Your task to perform on an android device: open device folders in google photos Image 0: 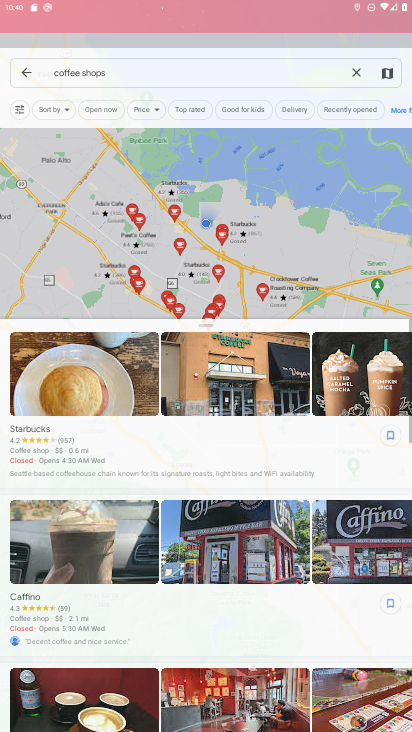
Step 0: click (141, 655)
Your task to perform on an android device: open device folders in google photos Image 1: 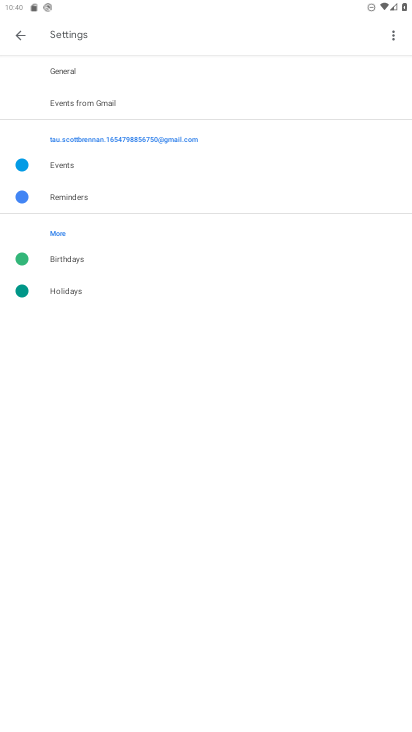
Step 1: press home button
Your task to perform on an android device: open device folders in google photos Image 2: 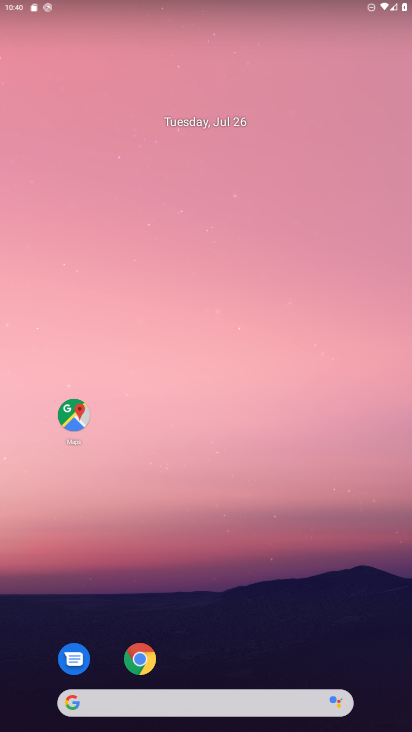
Step 2: drag from (385, 717) to (305, 130)
Your task to perform on an android device: open device folders in google photos Image 3: 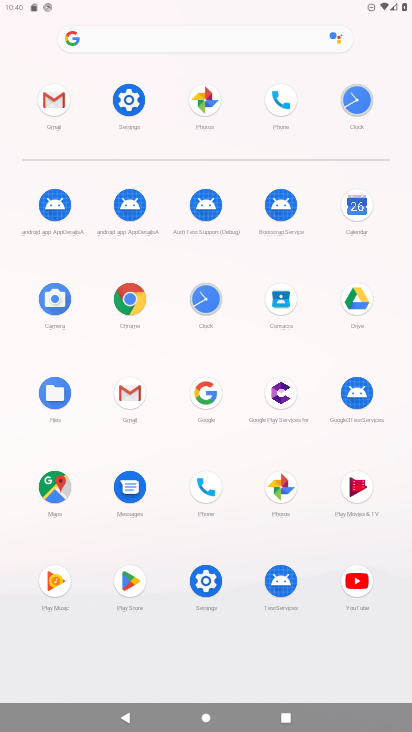
Step 3: click (279, 482)
Your task to perform on an android device: open device folders in google photos Image 4: 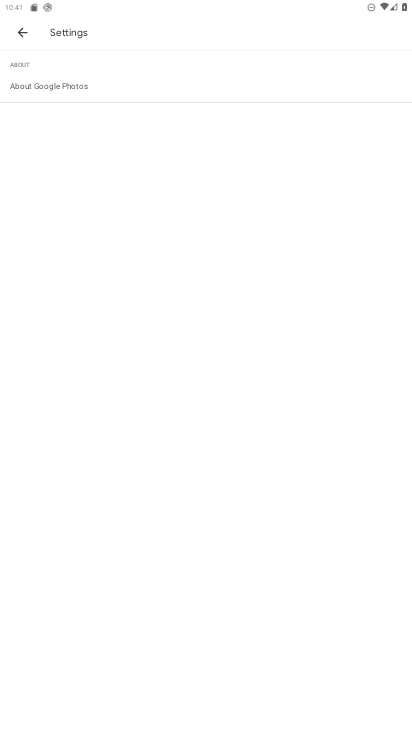
Step 4: click (19, 36)
Your task to perform on an android device: open device folders in google photos Image 5: 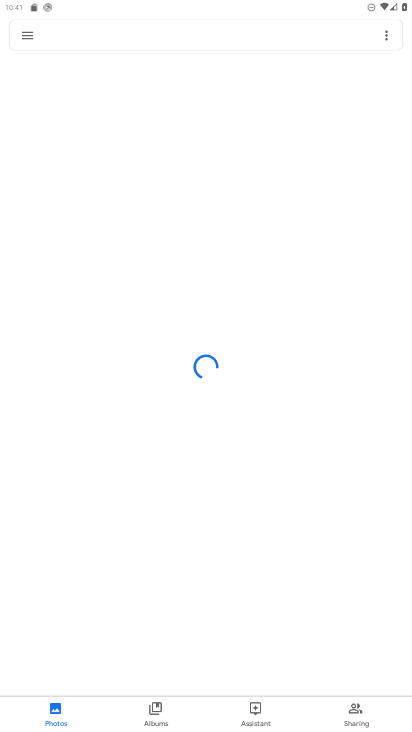
Step 5: task complete